Your task to perform on an android device: Go to calendar. Show me events next week Image 0: 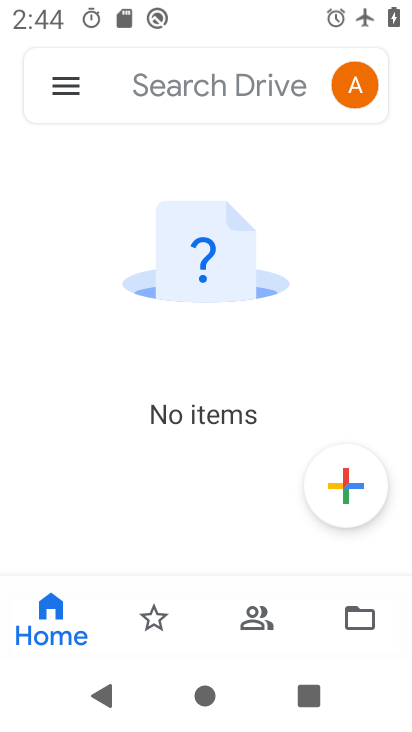
Step 0: press home button
Your task to perform on an android device: Go to calendar. Show me events next week Image 1: 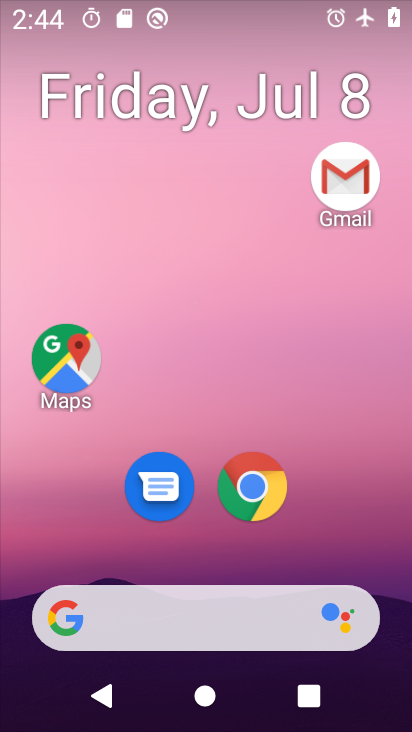
Step 1: drag from (352, 527) to (387, 124)
Your task to perform on an android device: Go to calendar. Show me events next week Image 2: 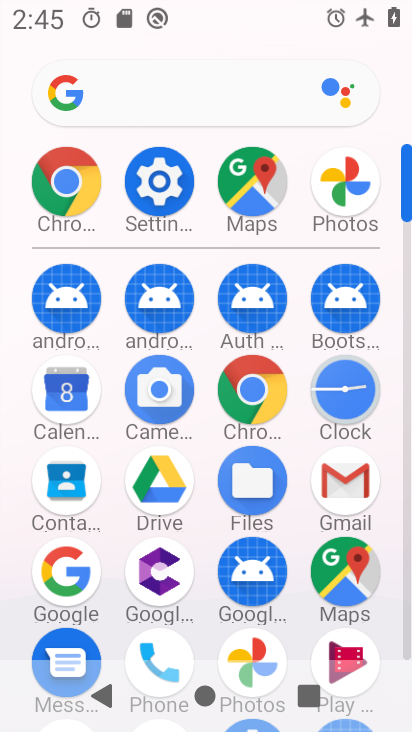
Step 2: click (76, 389)
Your task to perform on an android device: Go to calendar. Show me events next week Image 3: 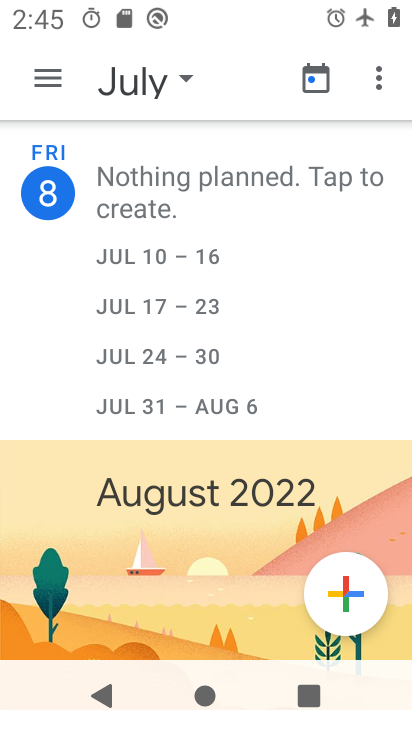
Step 3: click (186, 79)
Your task to perform on an android device: Go to calendar. Show me events next week Image 4: 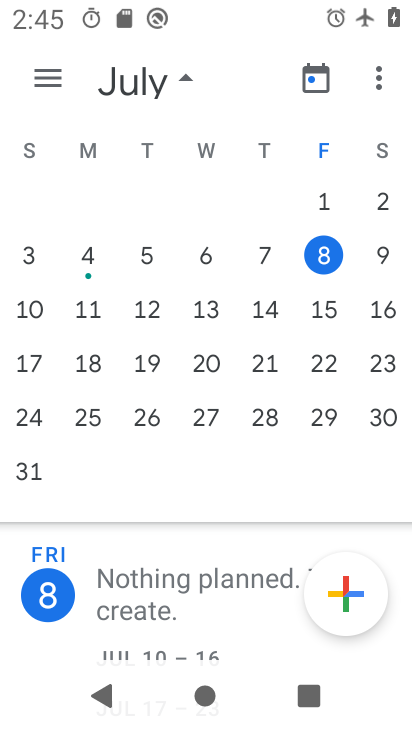
Step 4: click (101, 311)
Your task to perform on an android device: Go to calendar. Show me events next week Image 5: 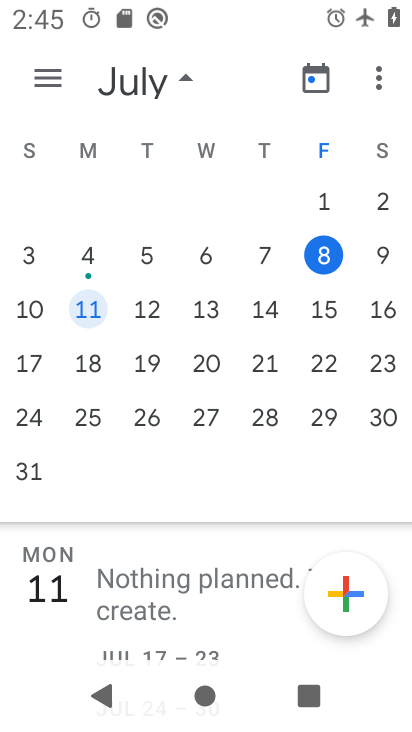
Step 5: task complete